Your task to perform on an android device: Open Google Maps Image 0: 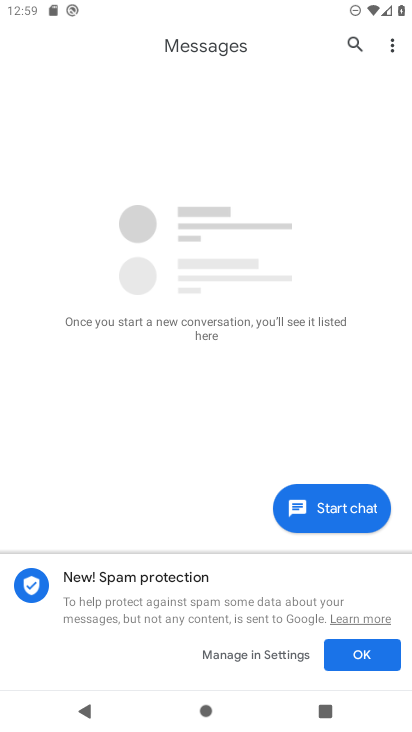
Step 0: press home button
Your task to perform on an android device: Open Google Maps Image 1: 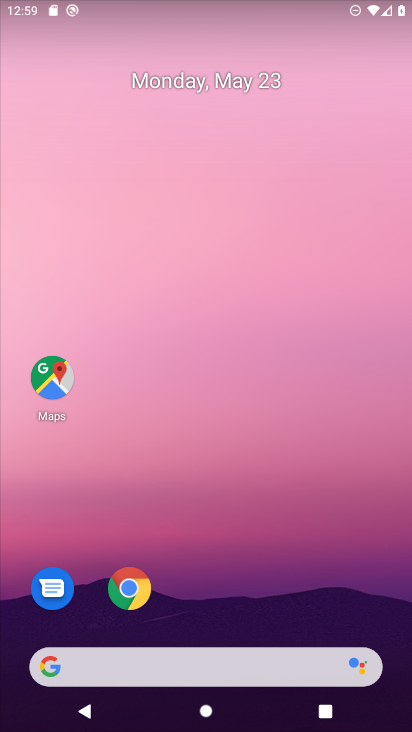
Step 1: click (50, 380)
Your task to perform on an android device: Open Google Maps Image 2: 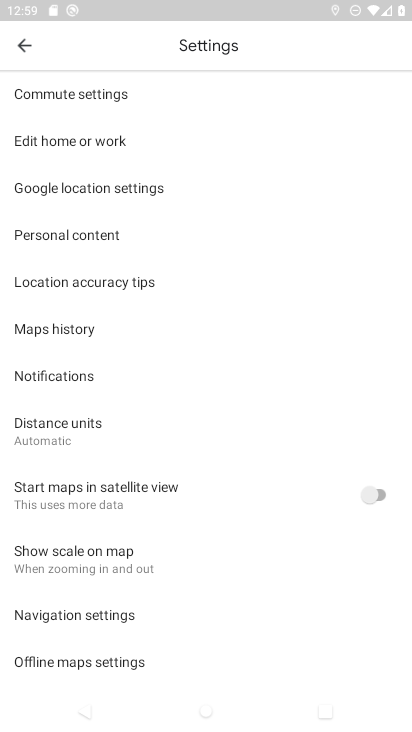
Step 2: press home button
Your task to perform on an android device: Open Google Maps Image 3: 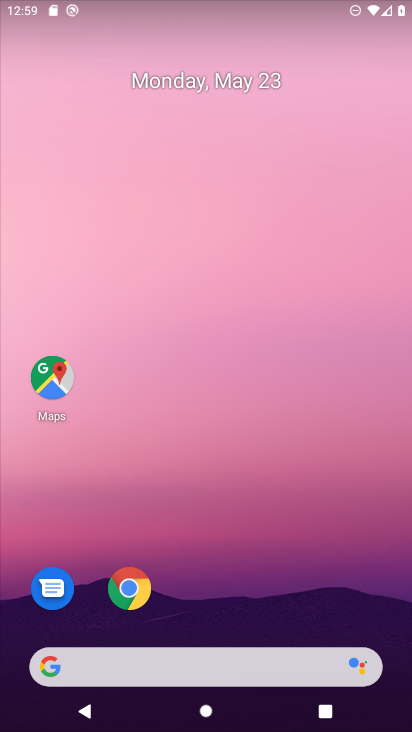
Step 3: click (45, 375)
Your task to perform on an android device: Open Google Maps Image 4: 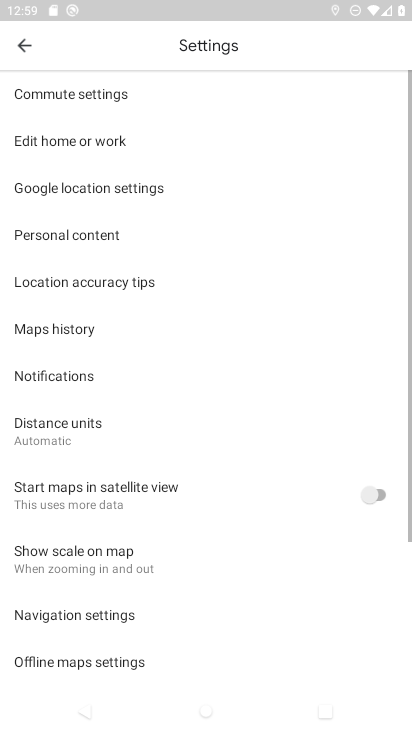
Step 4: click (22, 51)
Your task to perform on an android device: Open Google Maps Image 5: 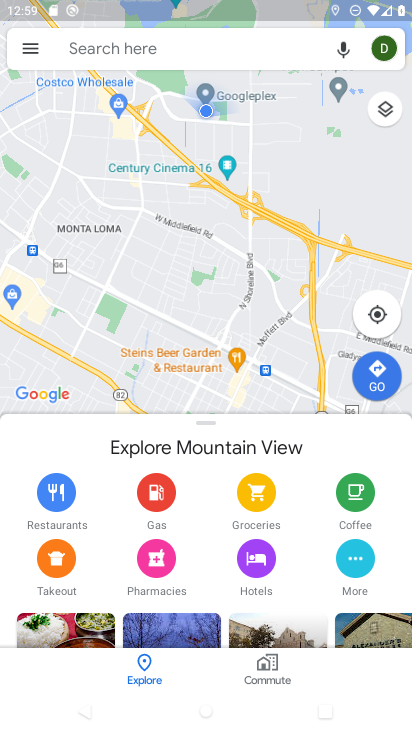
Step 5: task complete